Your task to perform on an android device: turn off location Image 0: 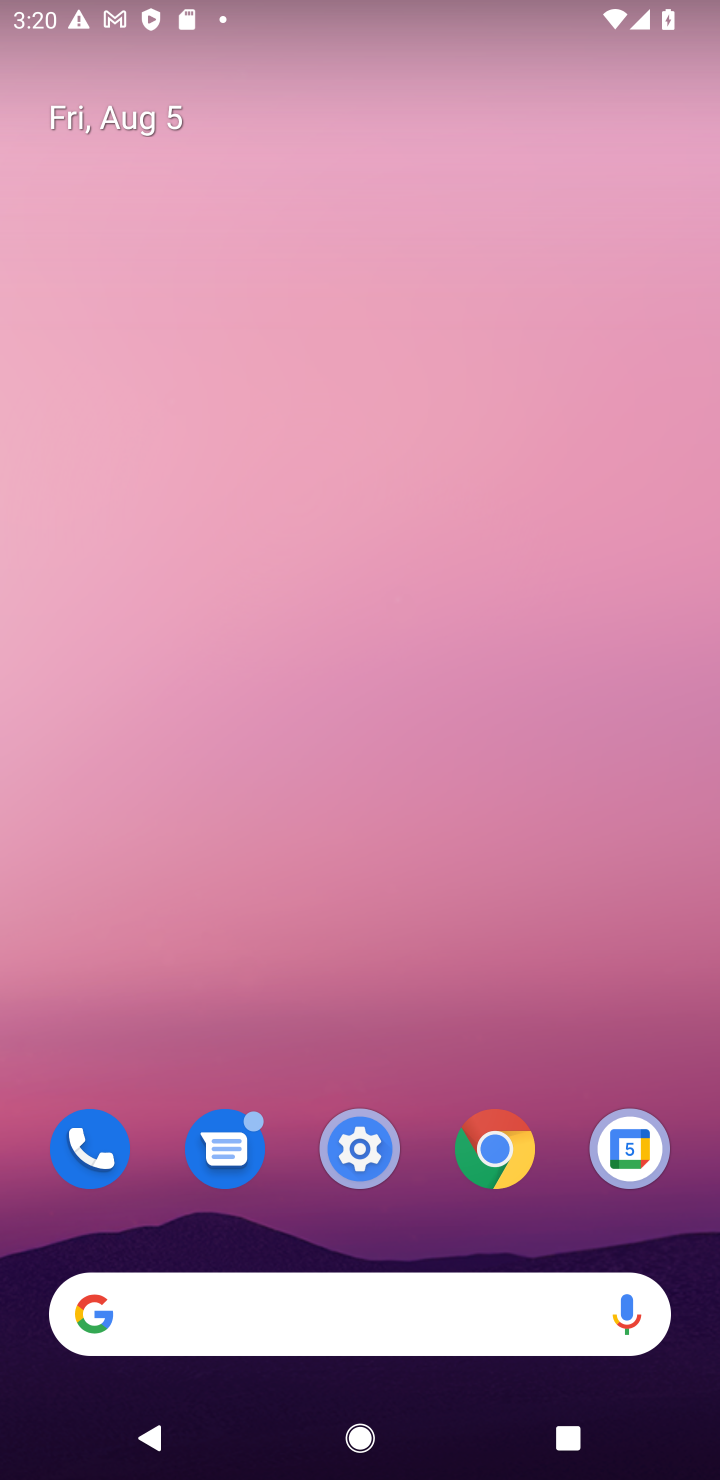
Step 0: drag from (347, 843) to (440, 64)
Your task to perform on an android device: turn off location Image 1: 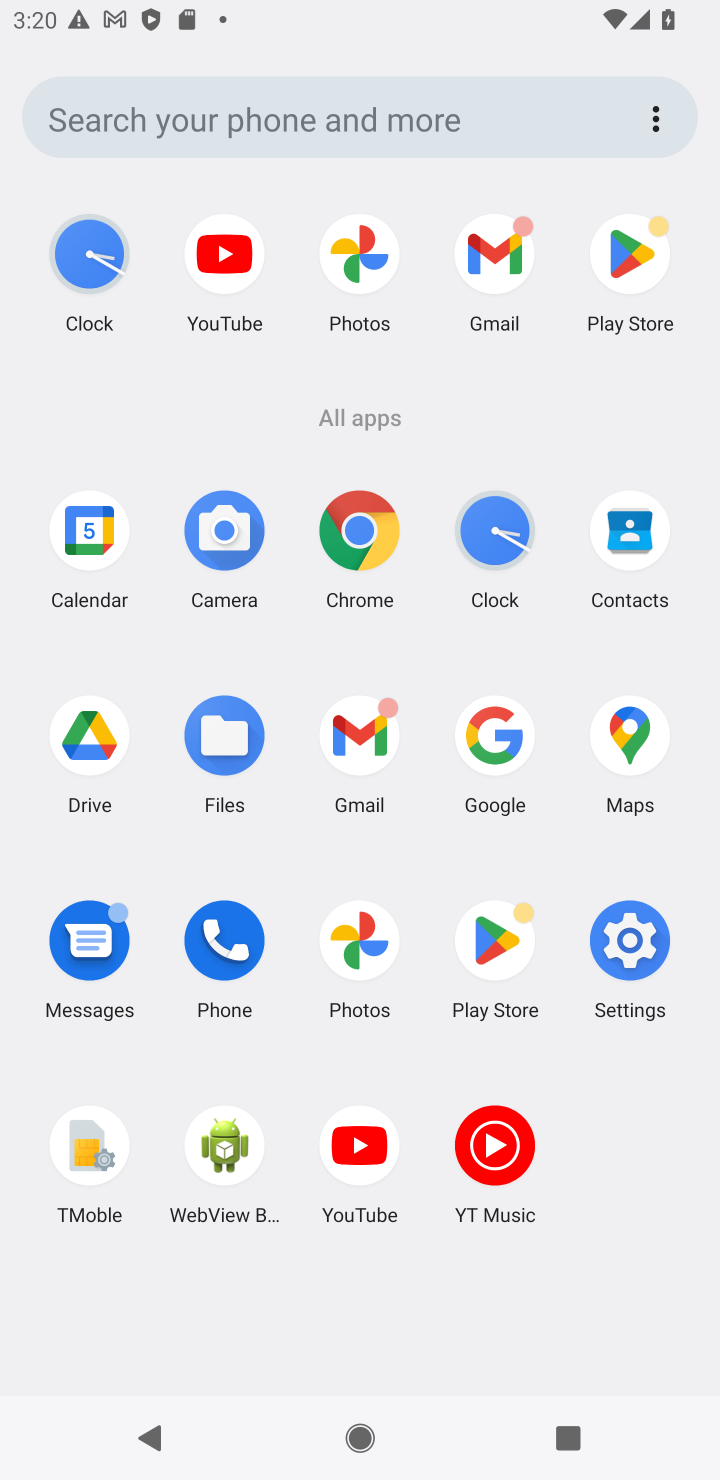
Step 1: click (632, 951)
Your task to perform on an android device: turn off location Image 2: 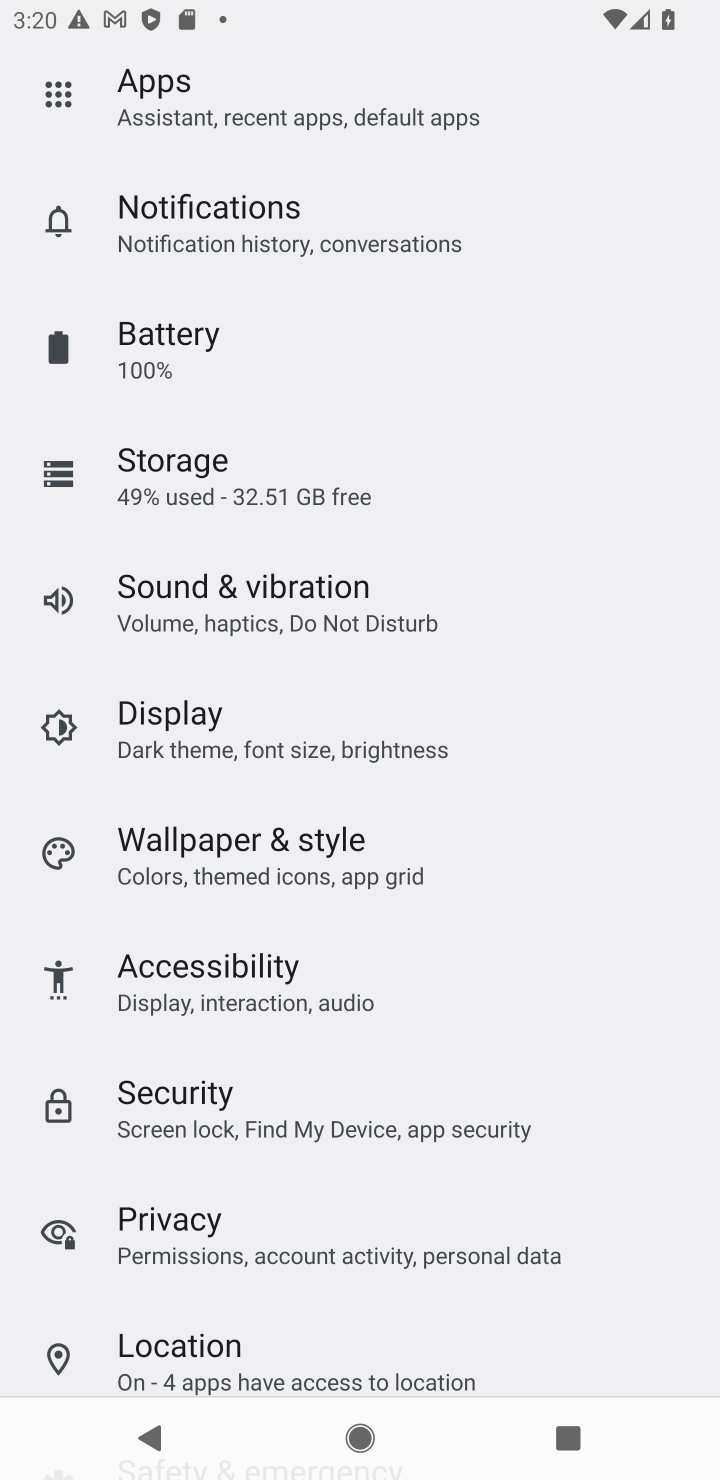
Step 2: click (239, 1354)
Your task to perform on an android device: turn off location Image 3: 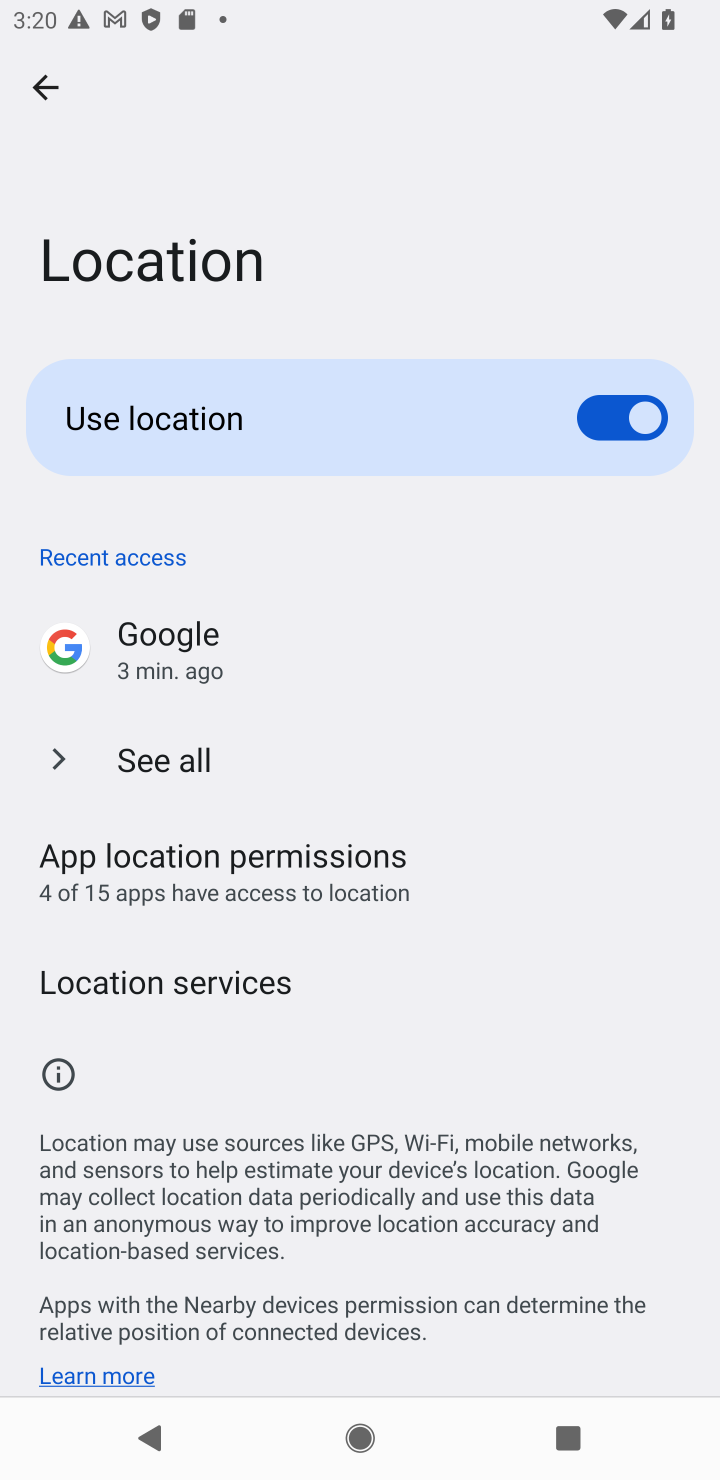
Step 3: click (646, 417)
Your task to perform on an android device: turn off location Image 4: 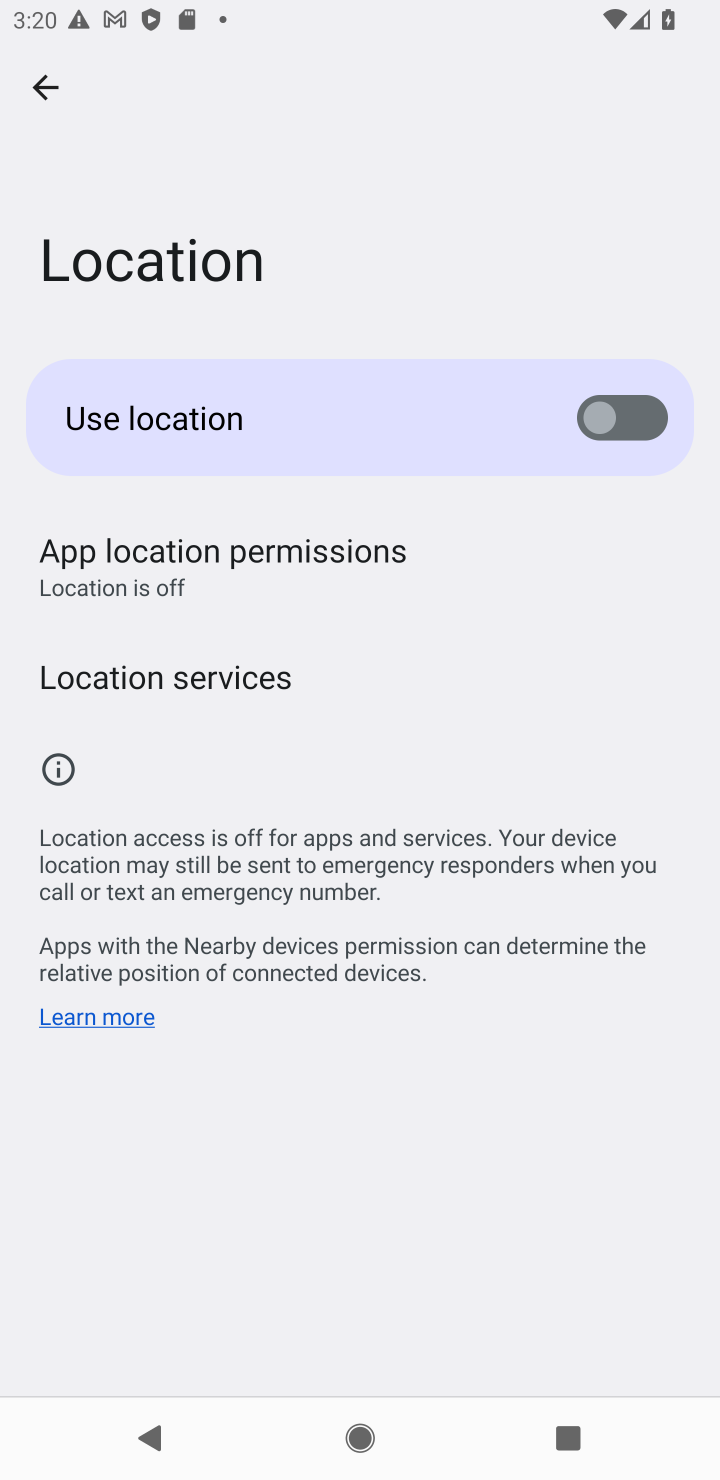
Step 4: task complete